Your task to perform on an android device: Open CNN.com Image 0: 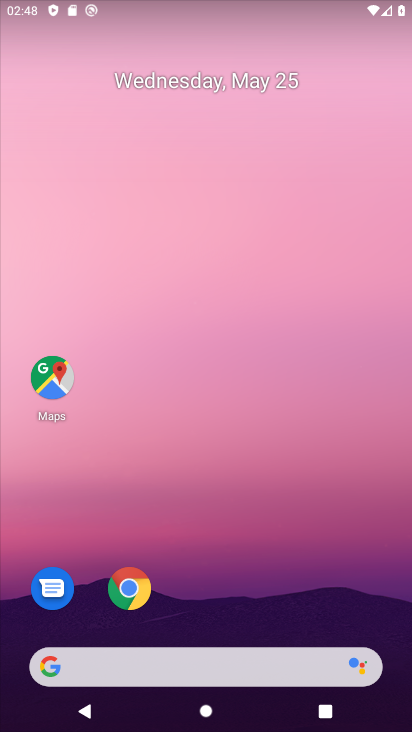
Step 0: click (147, 593)
Your task to perform on an android device: Open CNN.com Image 1: 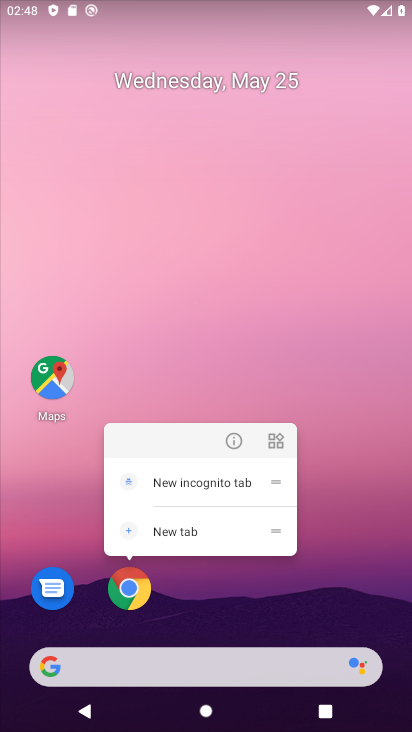
Step 1: click (135, 581)
Your task to perform on an android device: Open CNN.com Image 2: 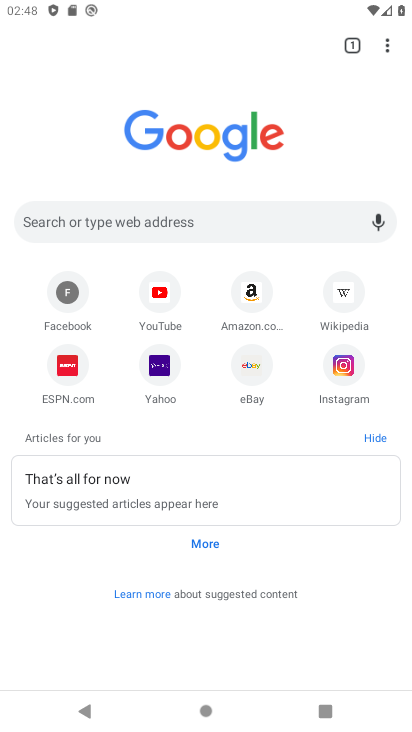
Step 2: click (174, 224)
Your task to perform on an android device: Open CNN.com Image 3: 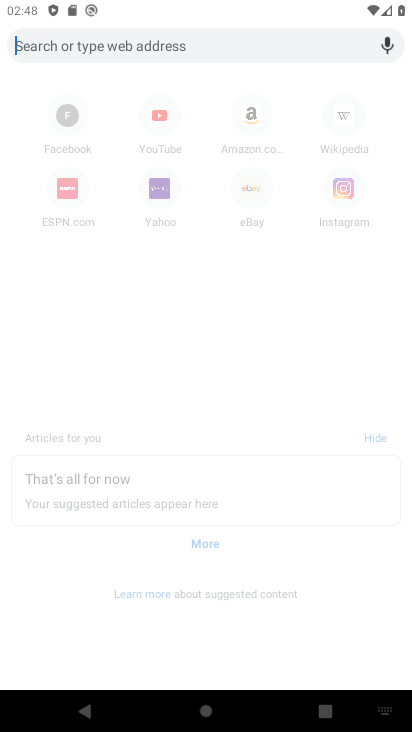
Step 3: type " CNN.com"
Your task to perform on an android device: Open CNN.com Image 4: 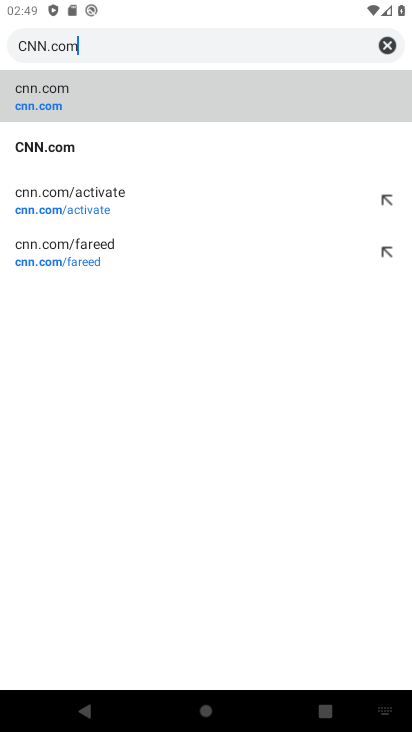
Step 4: click (49, 93)
Your task to perform on an android device: Open CNN.com Image 5: 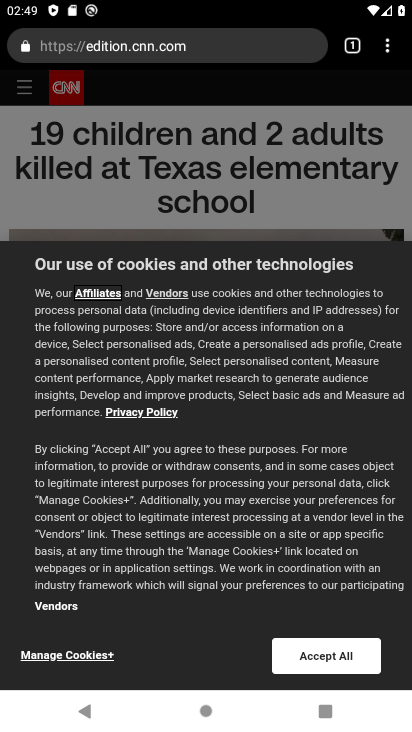
Step 5: task complete